Your task to perform on an android device: Search for Italian restaurants on Maps Image 0: 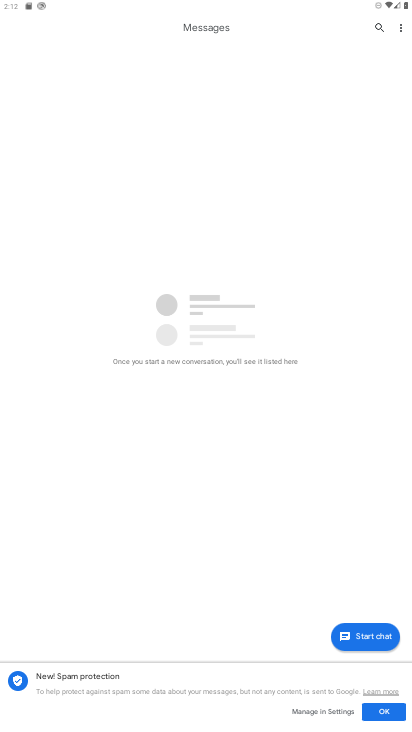
Step 0: press home button
Your task to perform on an android device: Search for Italian restaurants on Maps Image 1: 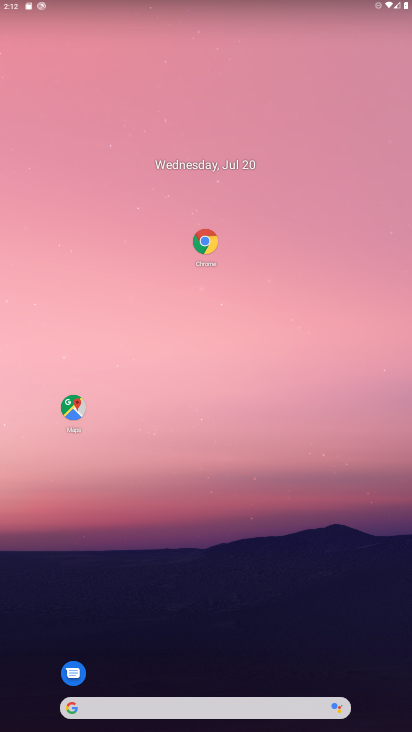
Step 1: click (75, 409)
Your task to perform on an android device: Search for Italian restaurants on Maps Image 2: 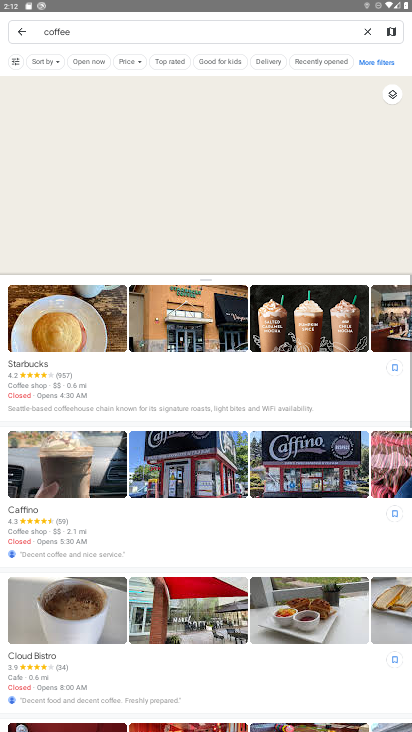
Step 2: click (182, 33)
Your task to perform on an android device: Search for Italian restaurants on Maps Image 3: 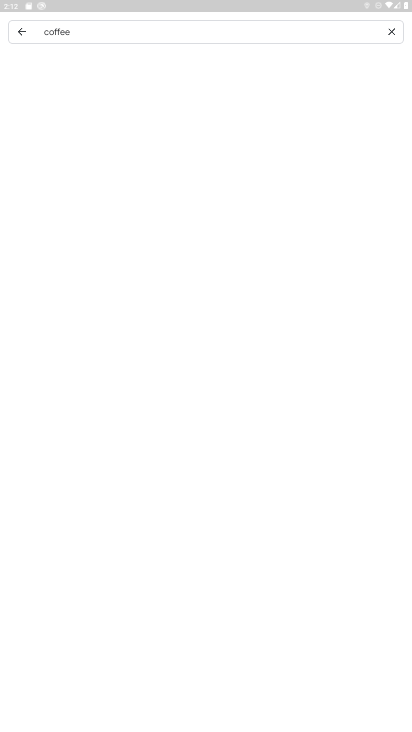
Step 3: click (390, 29)
Your task to perform on an android device: Search for Italian restaurants on Maps Image 4: 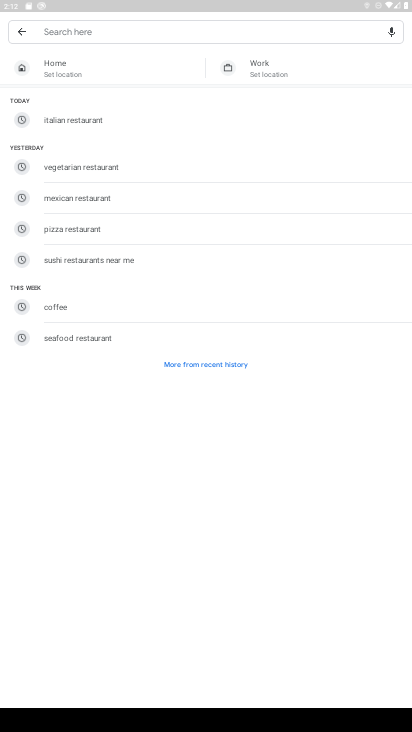
Step 4: click (115, 123)
Your task to perform on an android device: Search for Italian restaurants on Maps Image 5: 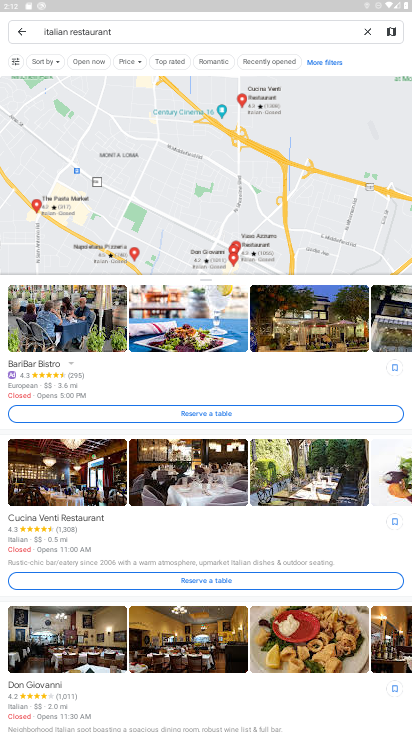
Step 5: task complete